Your task to perform on an android device: toggle location history Image 0: 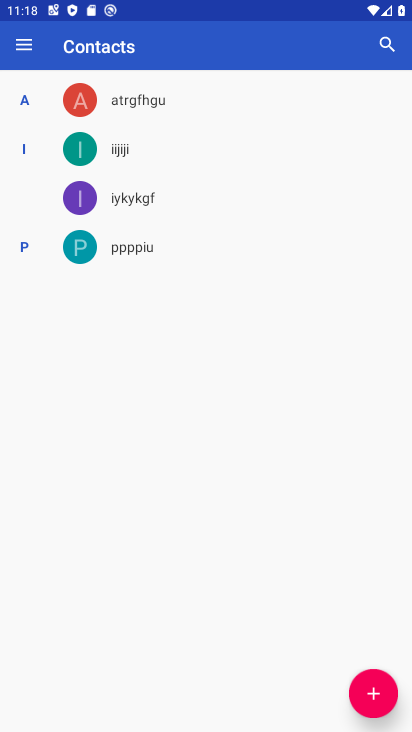
Step 0: press home button
Your task to perform on an android device: toggle location history Image 1: 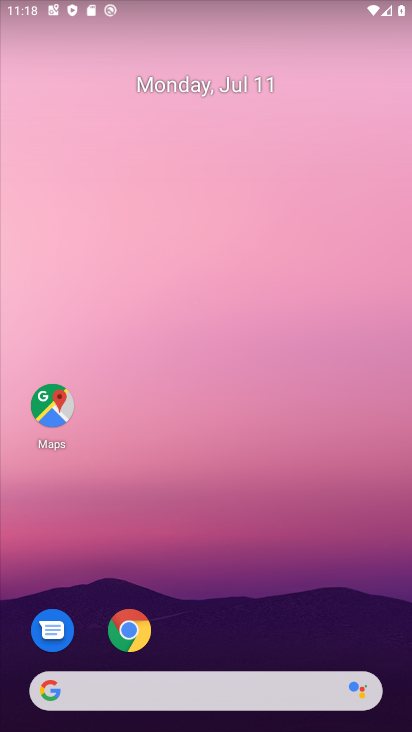
Step 1: drag from (209, 619) to (314, 266)
Your task to perform on an android device: toggle location history Image 2: 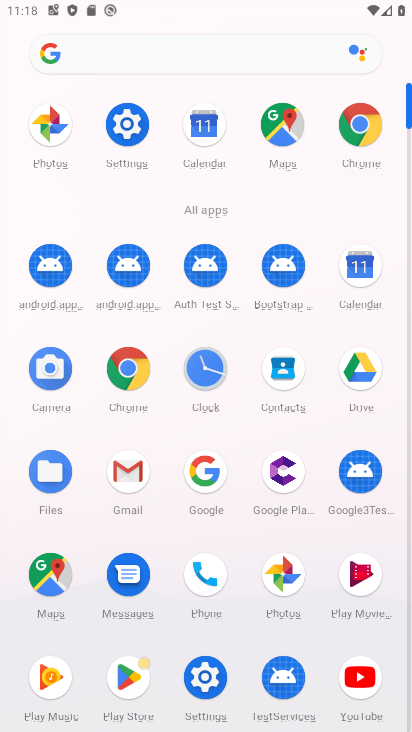
Step 2: click (194, 680)
Your task to perform on an android device: toggle location history Image 3: 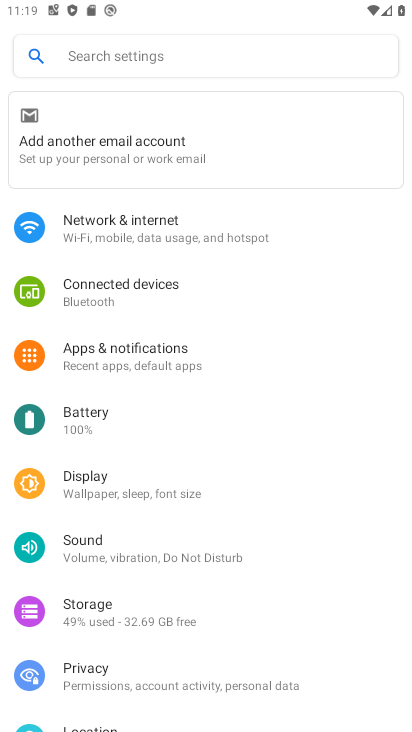
Step 3: drag from (174, 643) to (219, 264)
Your task to perform on an android device: toggle location history Image 4: 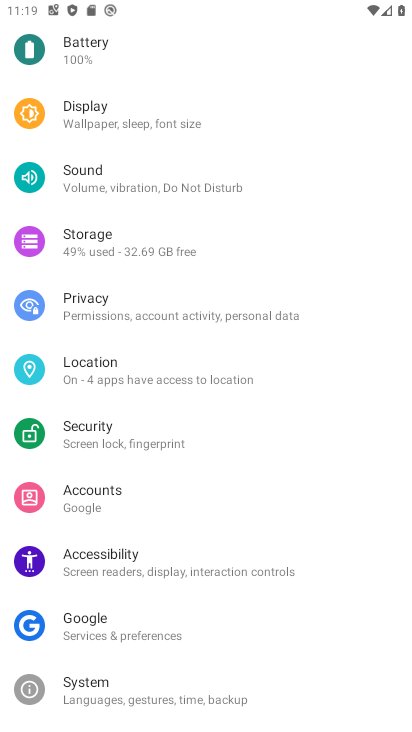
Step 4: click (118, 363)
Your task to perform on an android device: toggle location history Image 5: 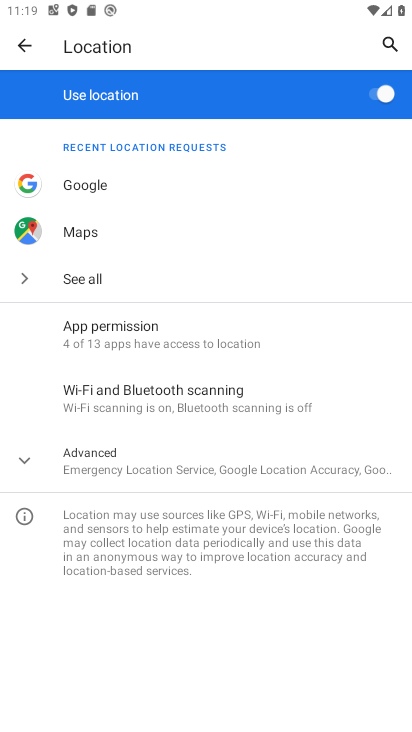
Step 5: click (152, 462)
Your task to perform on an android device: toggle location history Image 6: 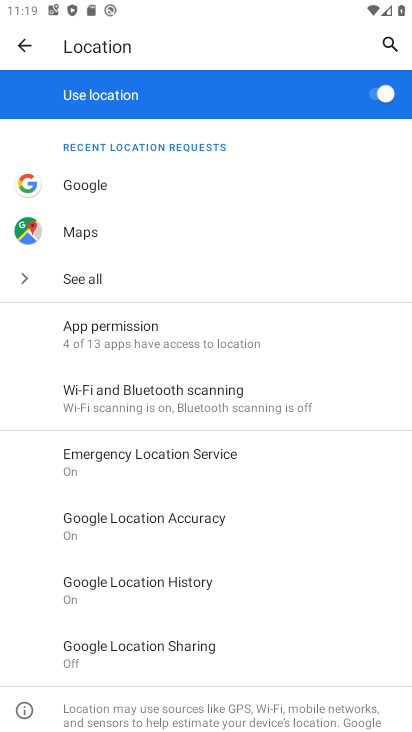
Step 6: click (186, 597)
Your task to perform on an android device: toggle location history Image 7: 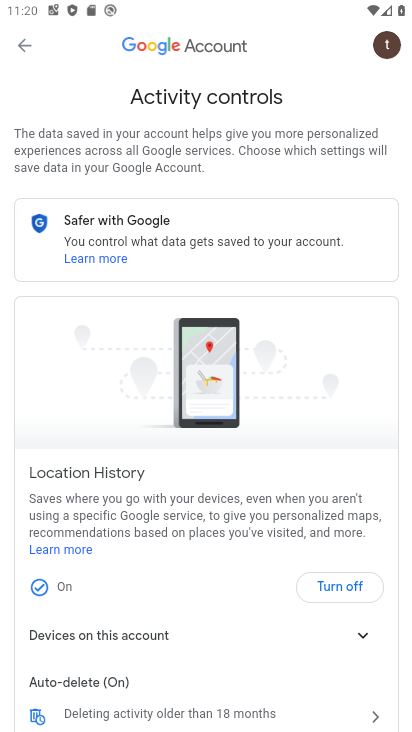
Step 7: click (324, 586)
Your task to perform on an android device: toggle location history Image 8: 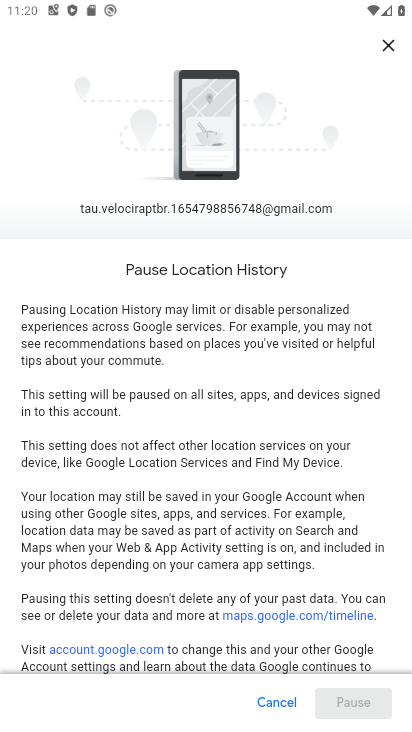
Step 8: drag from (265, 643) to (309, 313)
Your task to perform on an android device: toggle location history Image 9: 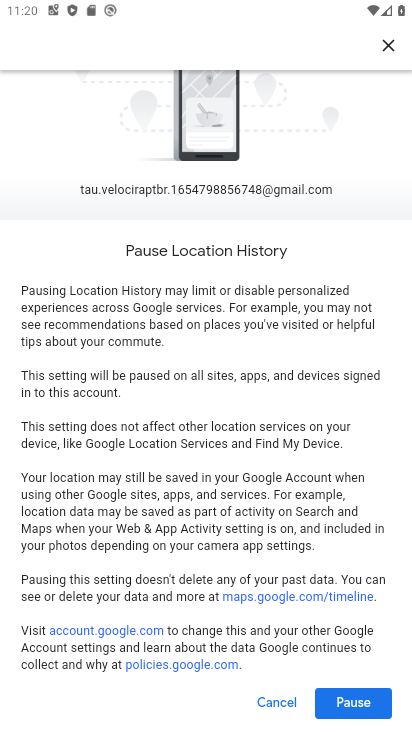
Step 9: click (343, 701)
Your task to perform on an android device: toggle location history Image 10: 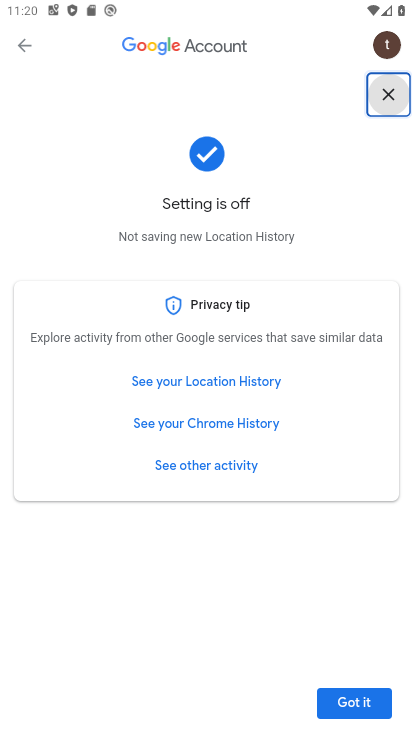
Step 10: click (343, 700)
Your task to perform on an android device: toggle location history Image 11: 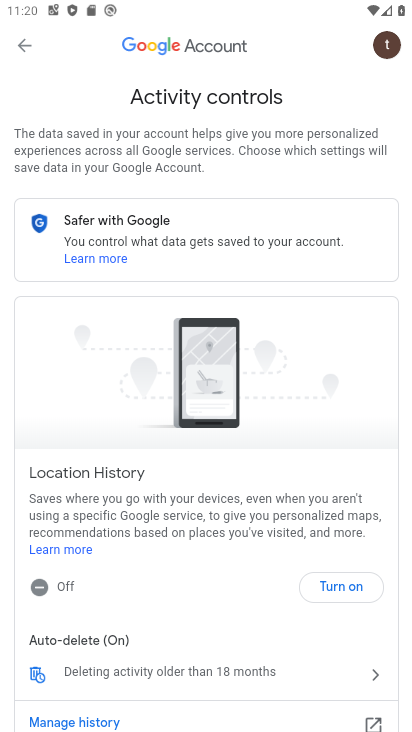
Step 11: task complete